Your task to perform on an android device: Open the calendar and show me this week's events? Image 0: 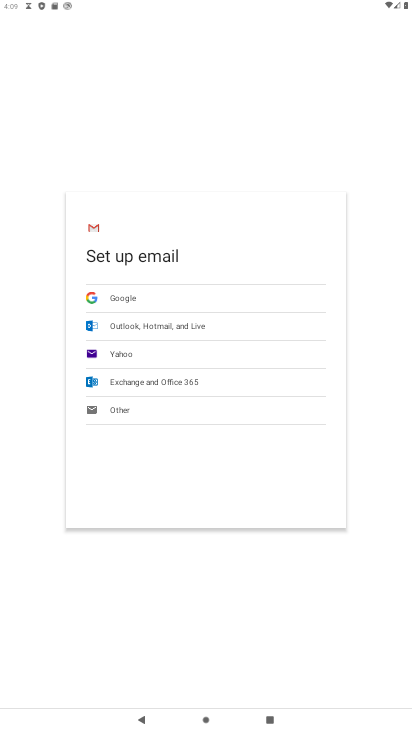
Step 0: press home button
Your task to perform on an android device: Open the calendar and show me this week's events? Image 1: 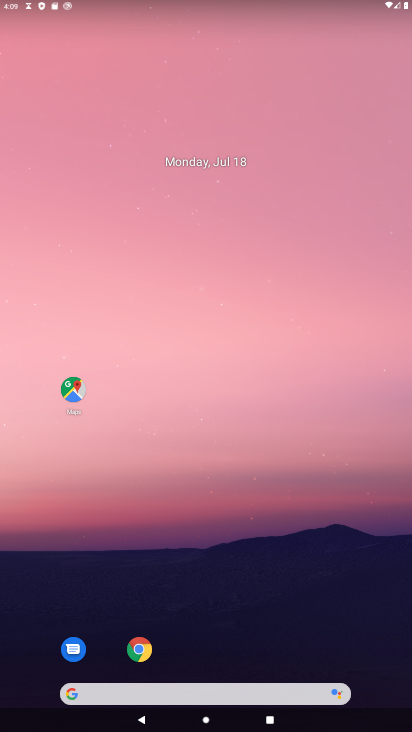
Step 1: drag from (259, 616) to (242, 216)
Your task to perform on an android device: Open the calendar and show me this week's events? Image 2: 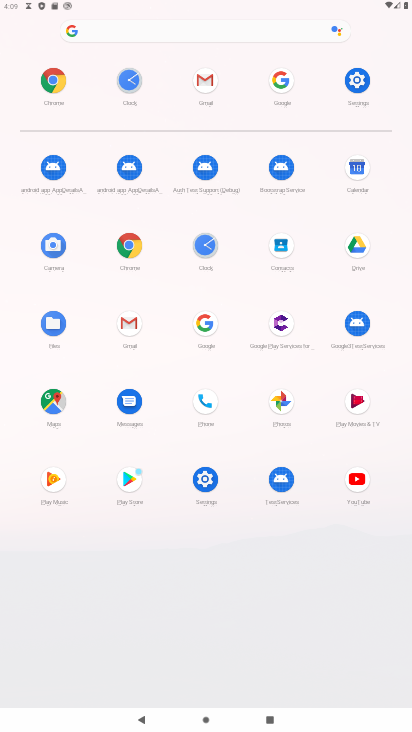
Step 2: click (353, 170)
Your task to perform on an android device: Open the calendar and show me this week's events? Image 3: 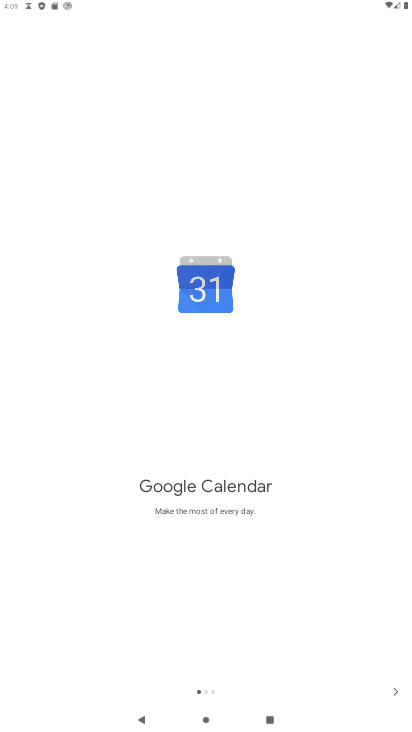
Step 3: click (396, 692)
Your task to perform on an android device: Open the calendar and show me this week's events? Image 4: 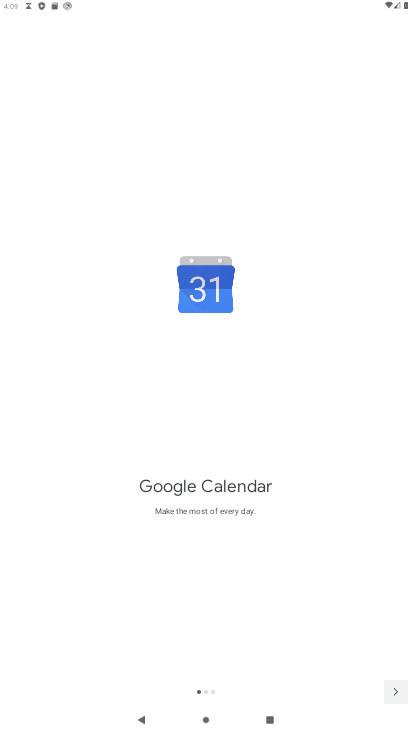
Step 4: click (396, 692)
Your task to perform on an android device: Open the calendar and show me this week's events? Image 5: 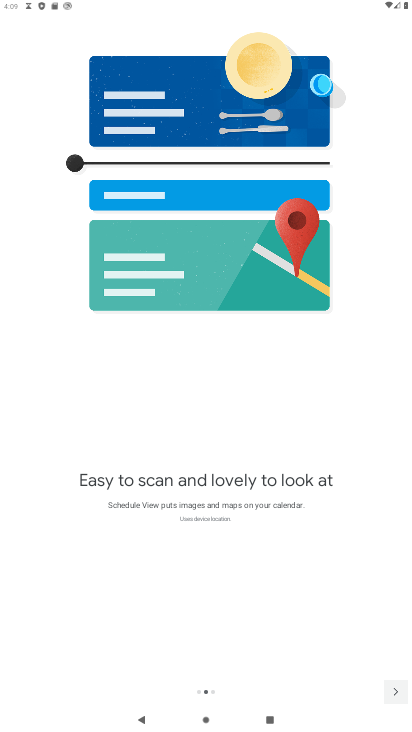
Step 5: click (392, 688)
Your task to perform on an android device: Open the calendar and show me this week's events? Image 6: 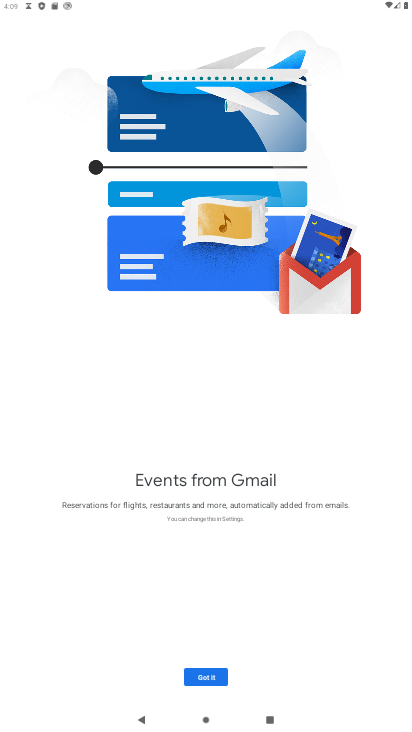
Step 6: click (392, 688)
Your task to perform on an android device: Open the calendar and show me this week's events? Image 7: 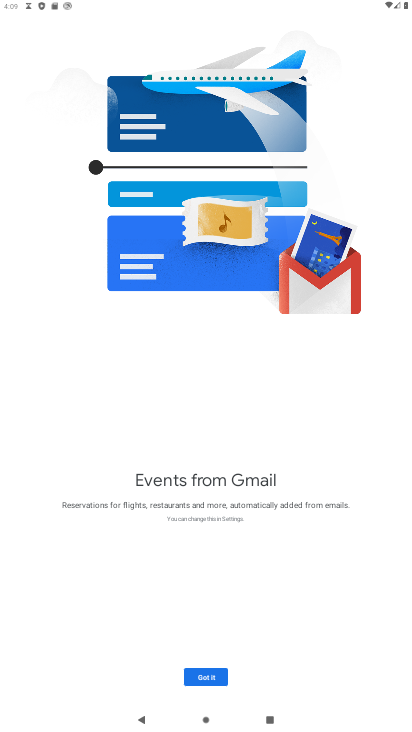
Step 7: click (206, 669)
Your task to perform on an android device: Open the calendar and show me this week's events? Image 8: 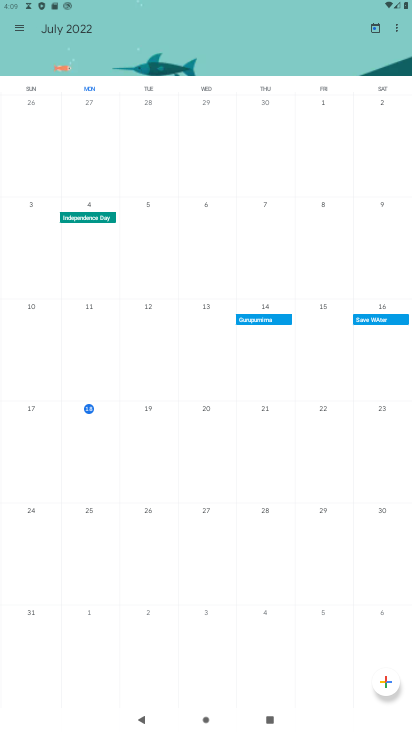
Step 8: click (16, 20)
Your task to perform on an android device: Open the calendar and show me this week's events? Image 9: 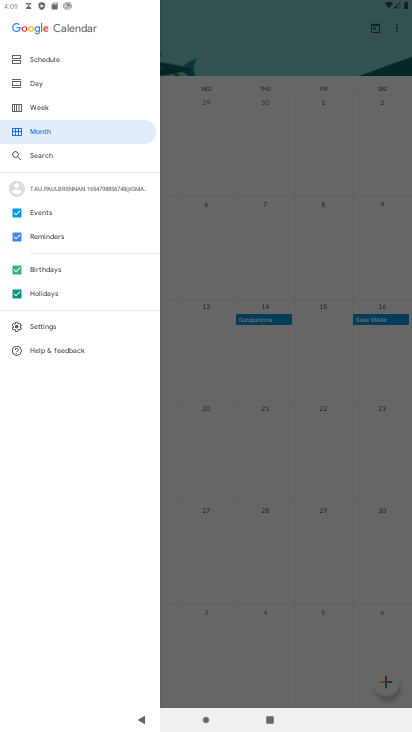
Step 9: click (243, 215)
Your task to perform on an android device: Open the calendar and show me this week's events? Image 10: 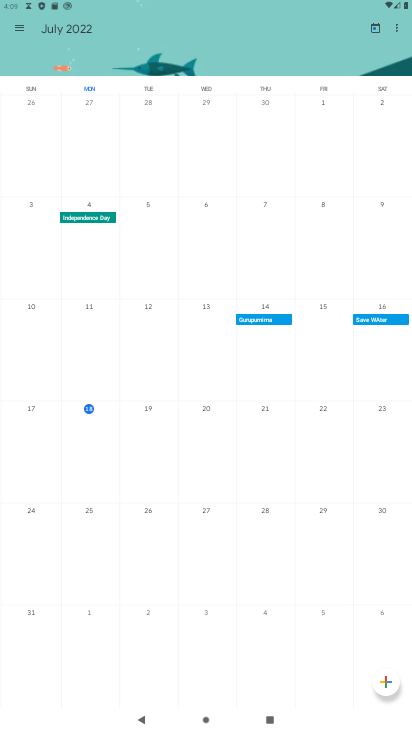
Step 10: task complete